Your task to perform on an android device: move a message to another label in the gmail app Image 0: 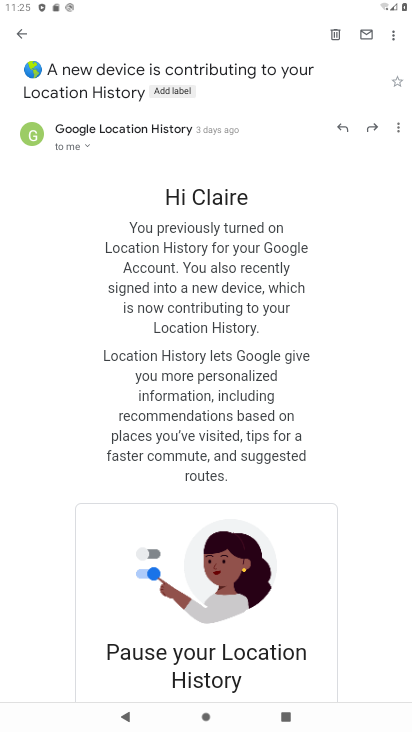
Step 0: click (28, 32)
Your task to perform on an android device: move a message to another label in the gmail app Image 1: 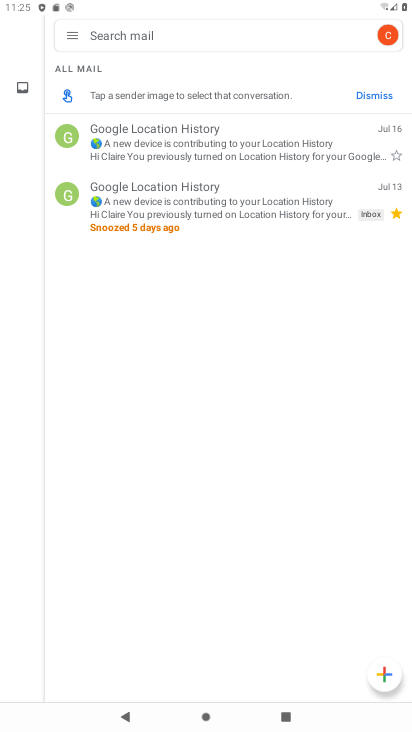
Step 1: click (108, 136)
Your task to perform on an android device: move a message to another label in the gmail app Image 2: 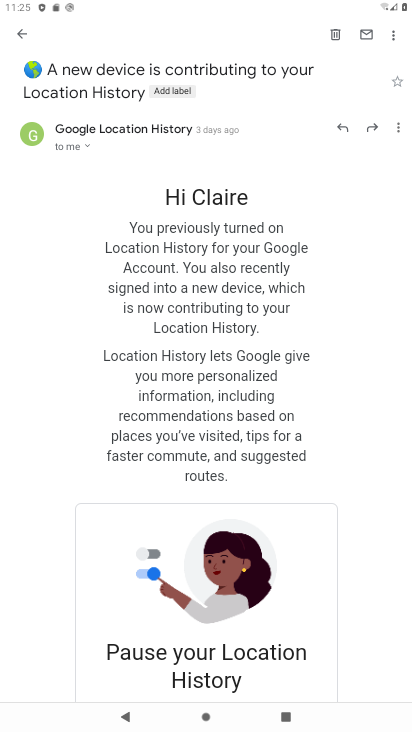
Step 2: click (179, 91)
Your task to perform on an android device: move a message to another label in the gmail app Image 3: 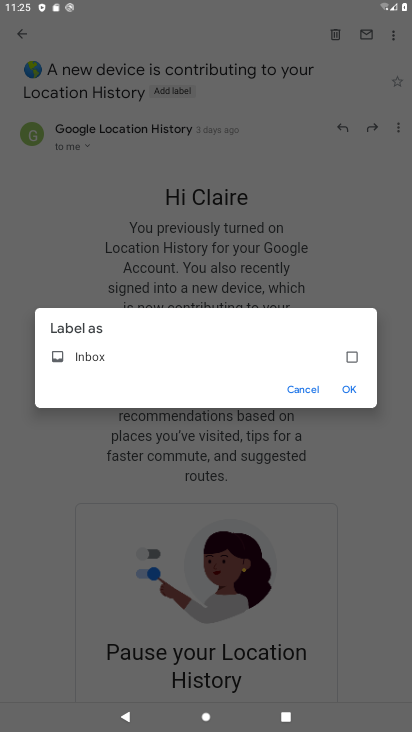
Step 3: click (336, 363)
Your task to perform on an android device: move a message to another label in the gmail app Image 4: 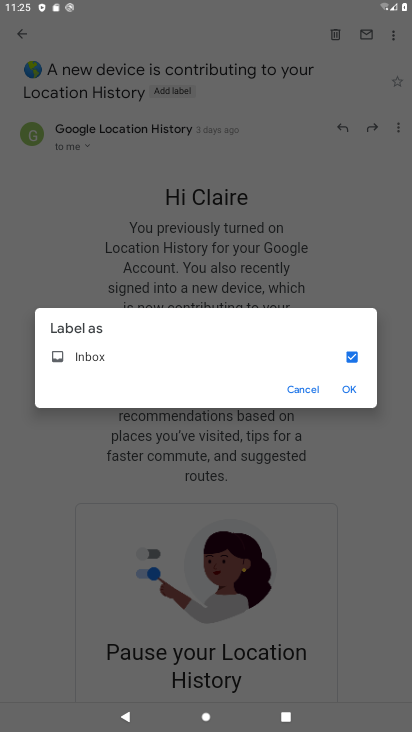
Step 4: click (356, 385)
Your task to perform on an android device: move a message to another label in the gmail app Image 5: 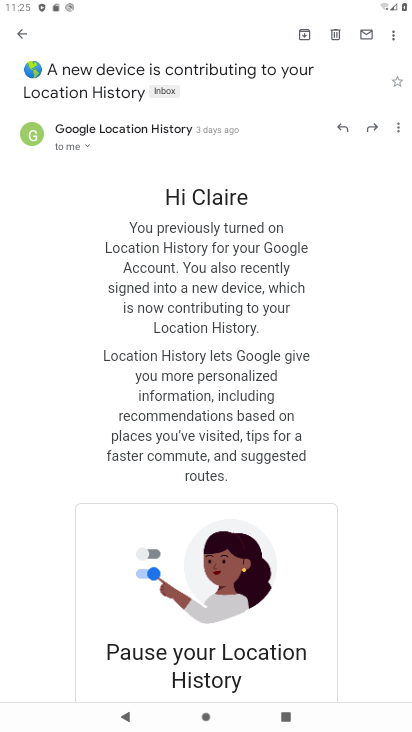
Step 5: task complete